Your task to perform on an android device: turn off airplane mode Image 0: 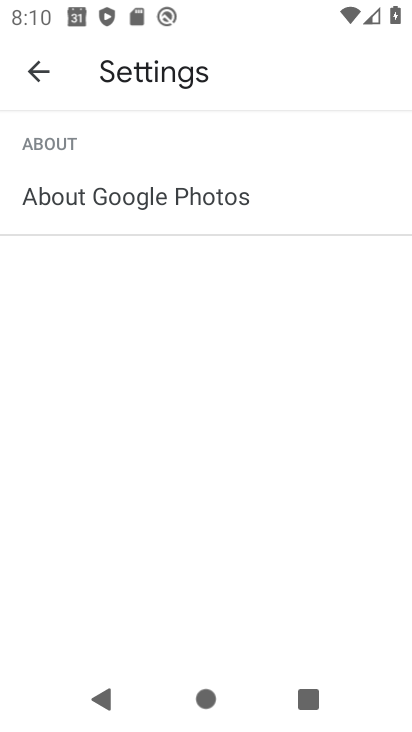
Step 0: press back button
Your task to perform on an android device: turn off airplane mode Image 1: 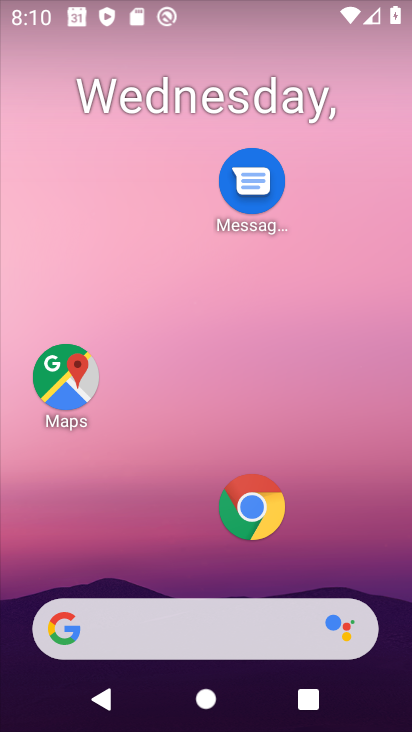
Step 1: drag from (124, 567) to (227, 0)
Your task to perform on an android device: turn off airplane mode Image 2: 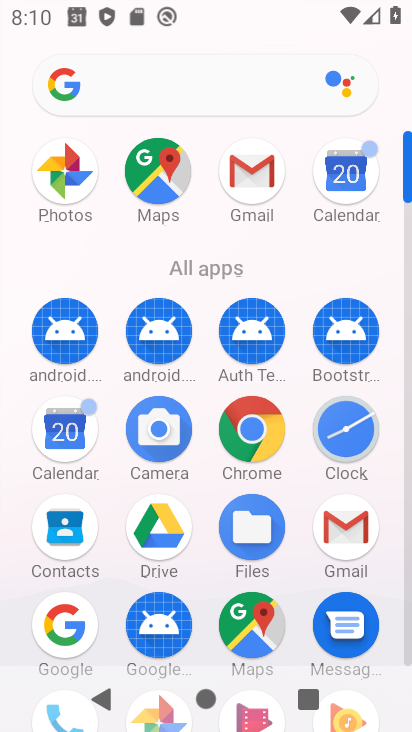
Step 2: drag from (186, 670) to (253, 374)
Your task to perform on an android device: turn off airplane mode Image 3: 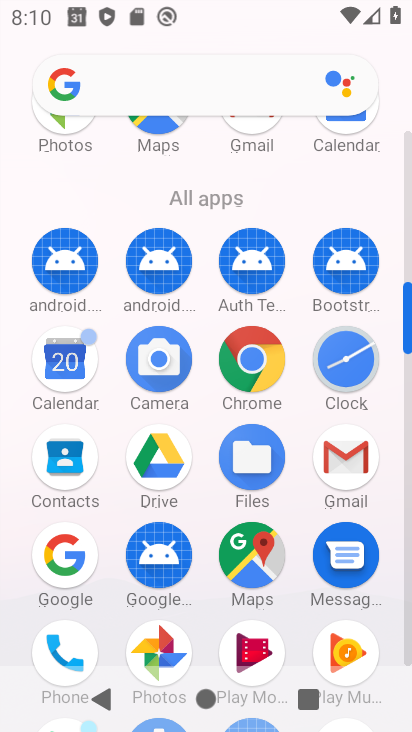
Step 3: drag from (157, 634) to (238, 314)
Your task to perform on an android device: turn off airplane mode Image 4: 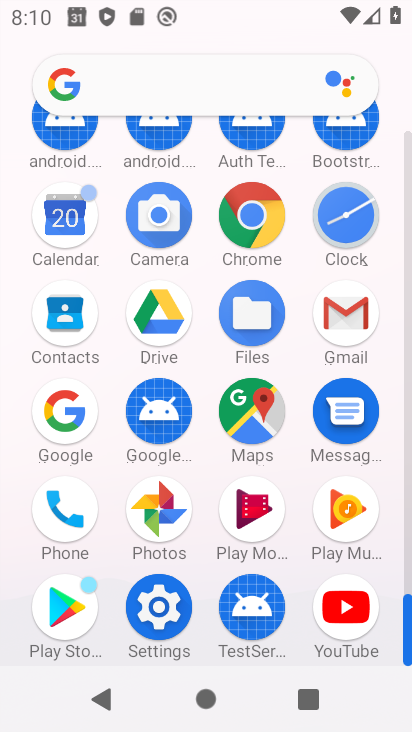
Step 4: click (136, 617)
Your task to perform on an android device: turn off airplane mode Image 5: 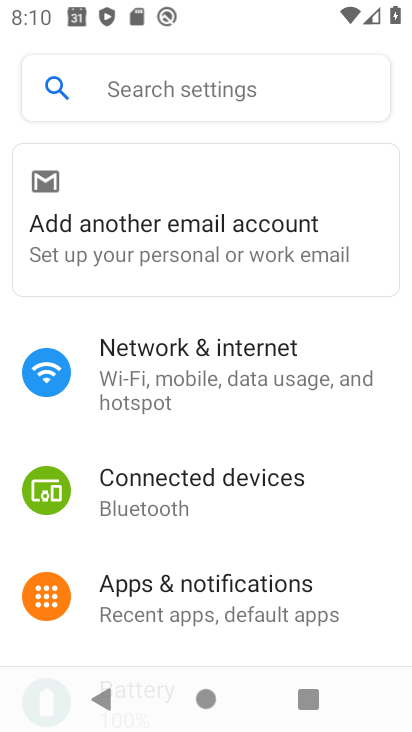
Step 5: click (260, 354)
Your task to perform on an android device: turn off airplane mode Image 6: 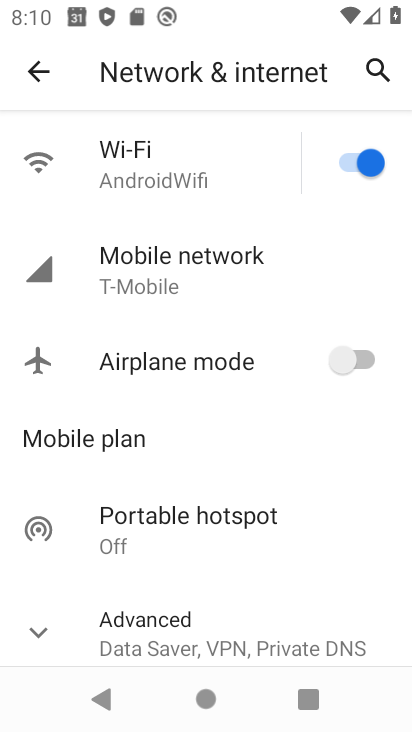
Step 6: task complete